Your task to perform on an android device: turn off smart reply in the gmail app Image 0: 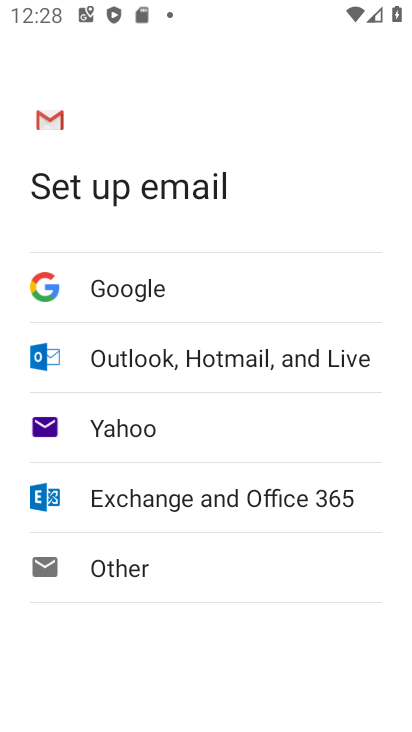
Step 0: press home button
Your task to perform on an android device: turn off smart reply in the gmail app Image 1: 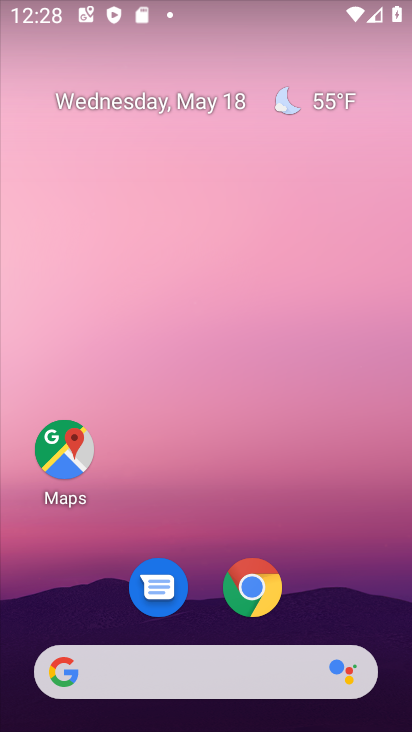
Step 1: click (129, 278)
Your task to perform on an android device: turn off smart reply in the gmail app Image 2: 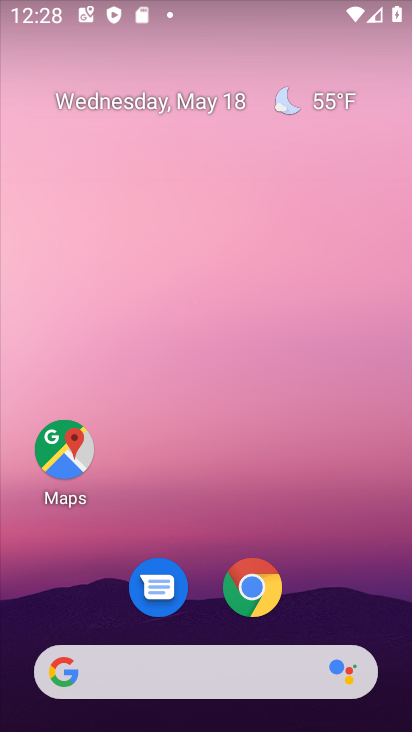
Step 2: drag from (299, 590) to (287, 68)
Your task to perform on an android device: turn off smart reply in the gmail app Image 3: 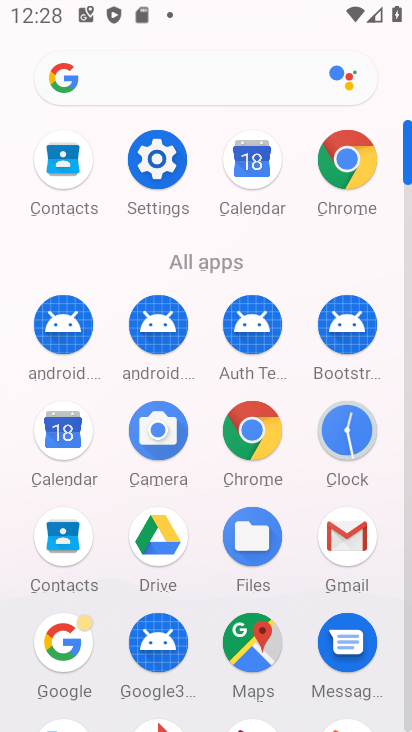
Step 3: click (344, 561)
Your task to perform on an android device: turn off smart reply in the gmail app Image 4: 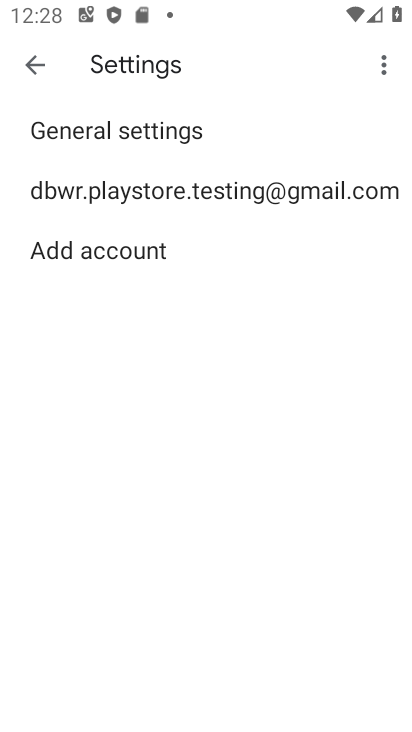
Step 4: click (201, 200)
Your task to perform on an android device: turn off smart reply in the gmail app Image 5: 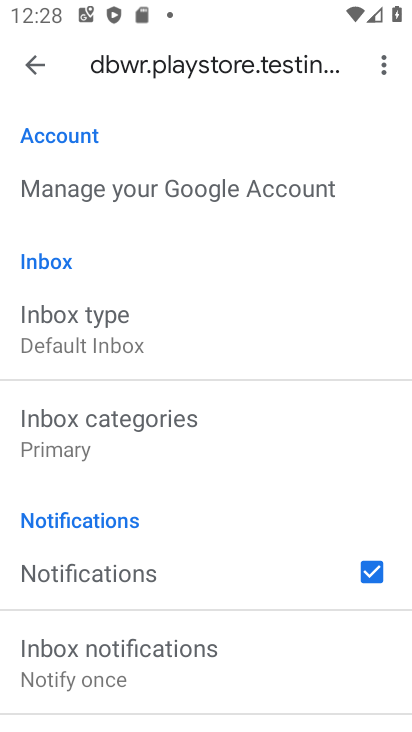
Step 5: drag from (192, 650) to (137, 271)
Your task to perform on an android device: turn off smart reply in the gmail app Image 6: 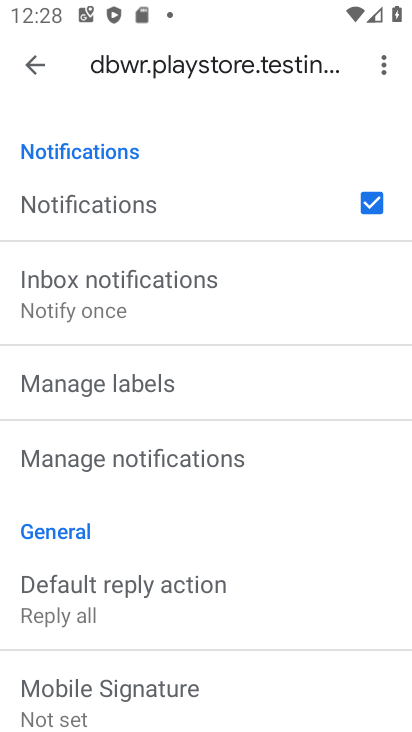
Step 6: drag from (130, 629) to (141, 379)
Your task to perform on an android device: turn off smart reply in the gmail app Image 7: 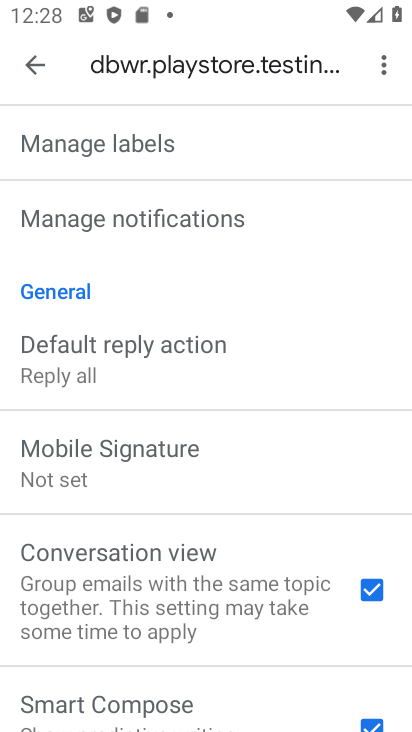
Step 7: drag from (188, 662) to (242, 327)
Your task to perform on an android device: turn off smart reply in the gmail app Image 8: 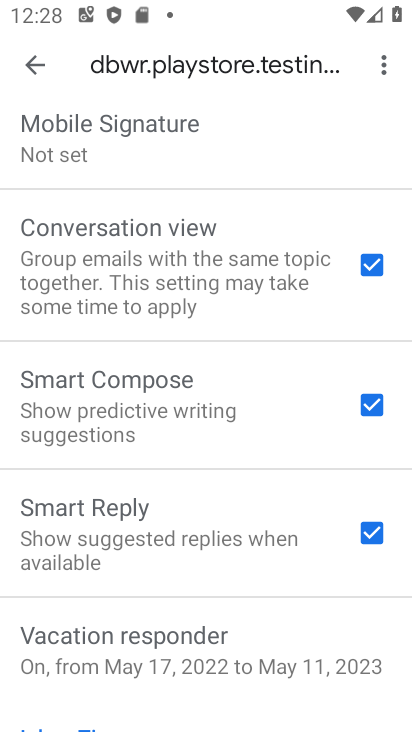
Step 8: click (378, 535)
Your task to perform on an android device: turn off smart reply in the gmail app Image 9: 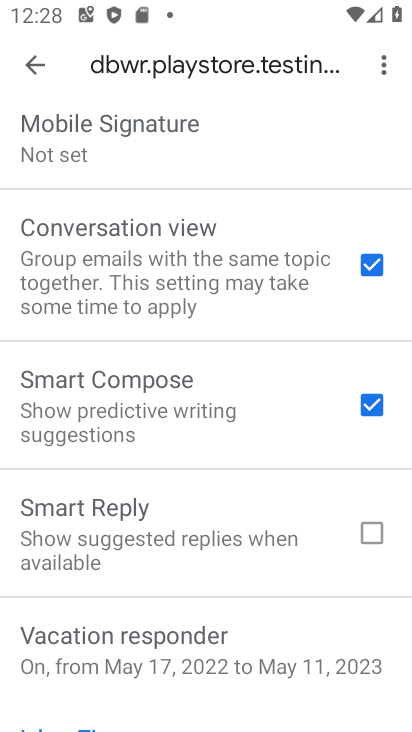
Step 9: task complete